Your task to perform on an android device: Is it going to rain today? Image 0: 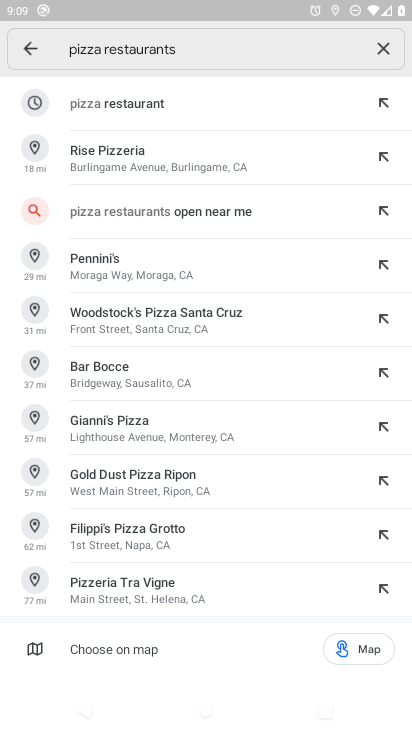
Step 0: press home button
Your task to perform on an android device: Is it going to rain today? Image 1: 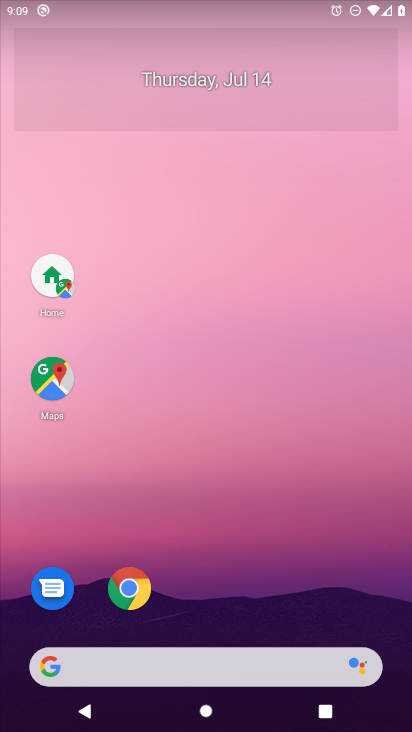
Step 1: click (100, 678)
Your task to perform on an android device: Is it going to rain today? Image 2: 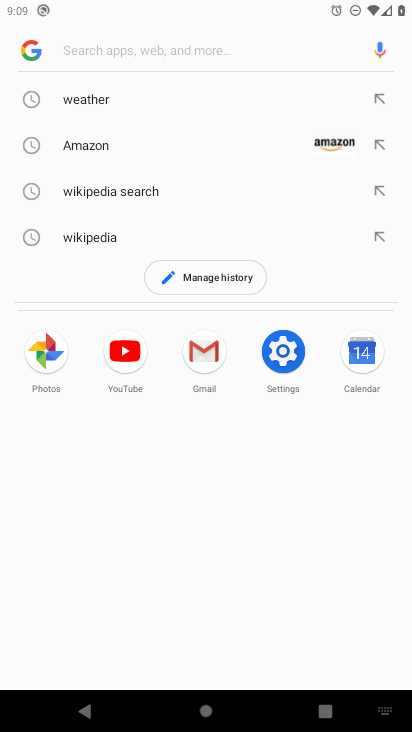
Step 2: type "Is it going to rain today?"
Your task to perform on an android device: Is it going to rain today? Image 3: 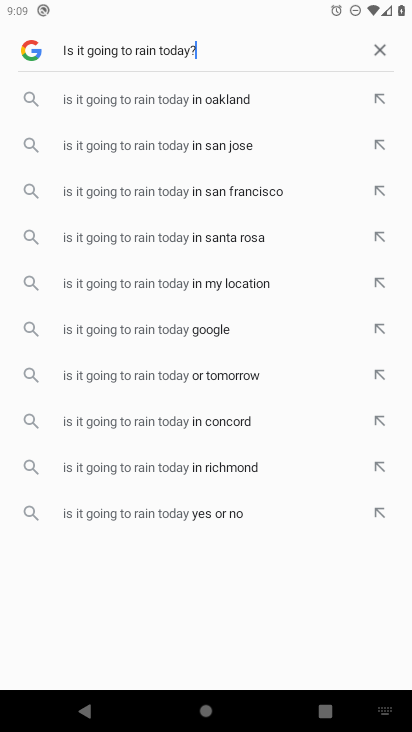
Step 3: type ""
Your task to perform on an android device: Is it going to rain today? Image 4: 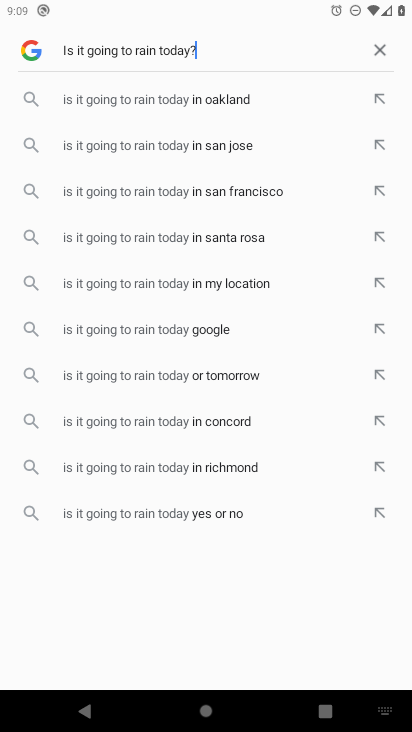
Step 4: type ""
Your task to perform on an android device: Is it going to rain today? Image 5: 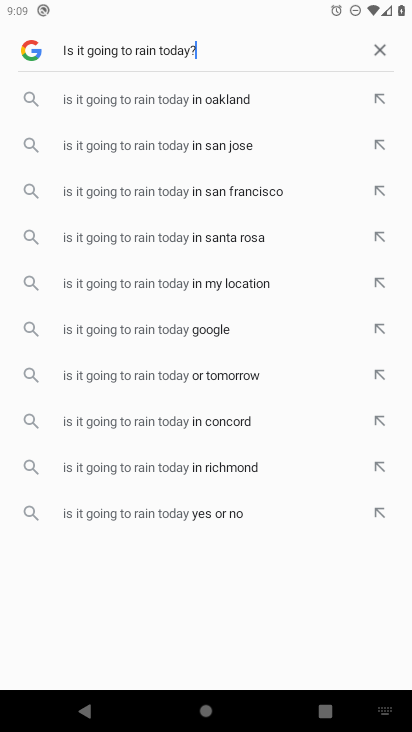
Step 5: type ""
Your task to perform on an android device: Is it going to rain today? Image 6: 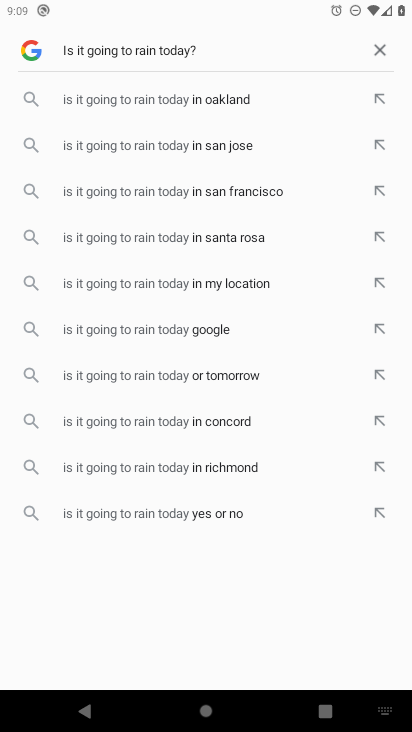
Step 6: task complete